Your task to perform on an android device: Go to ESPN.com Image 0: 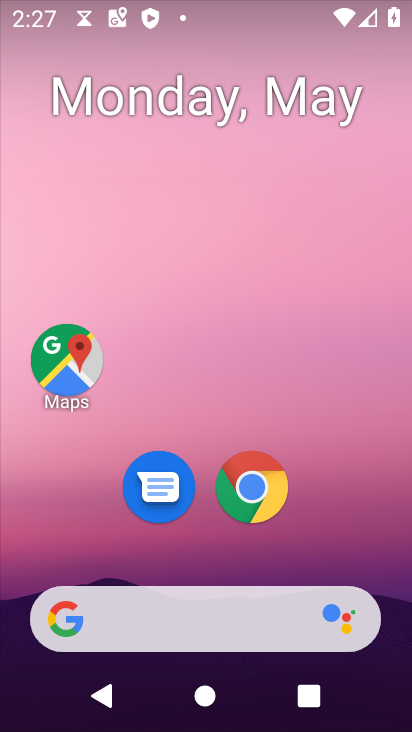
Step 0: click (268, 487)
Your task to perform on an android device: Go to ESPN.com Image 1: 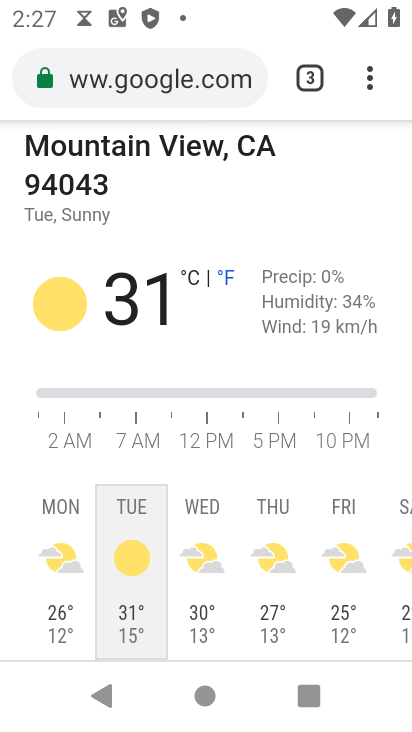
Step 1: click (237, 84)
Your task to perform on an android device: Go to ESPN.com Image 2: 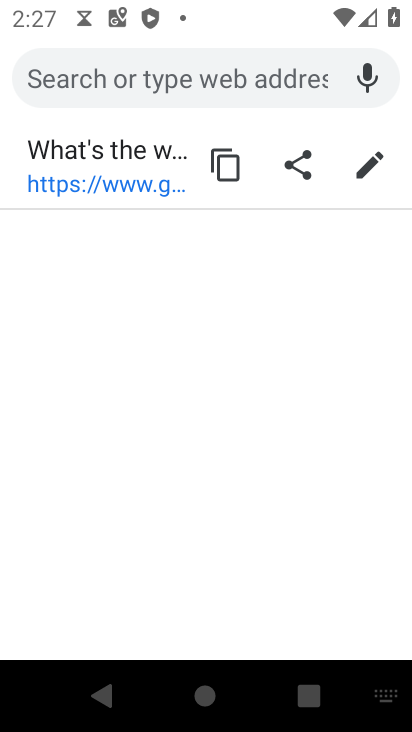
Step 2: type "espn.com"
Your task to perform on an android device: Go to ESPN.com Image 3: 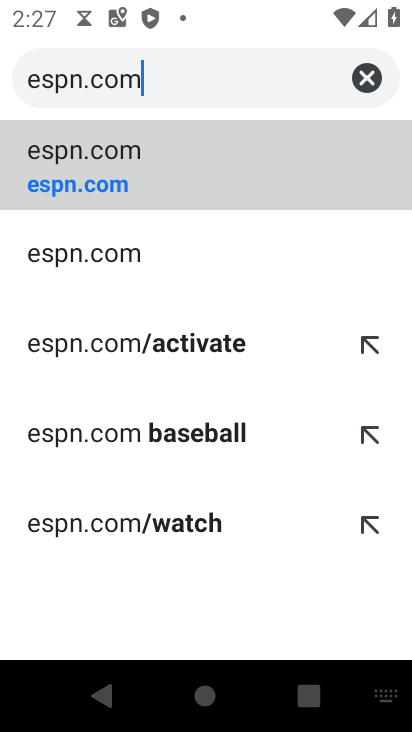
Step 3: click (111, 183)
Your task to perform on an android device: Go to ESPN.com Image 4: 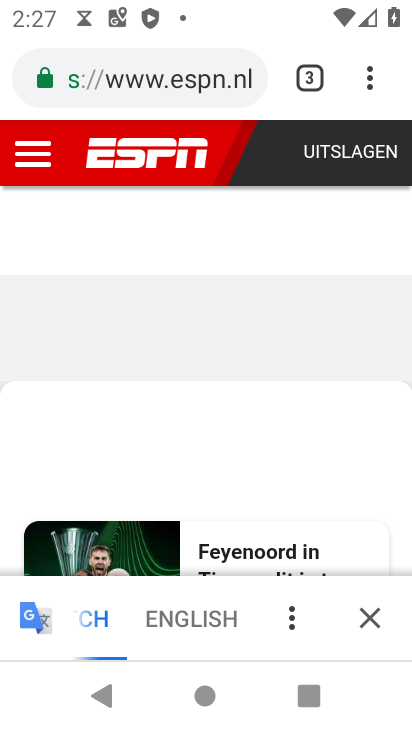
Step 4: click (368, 622)
Your task to perform on an android device: Go to ESPN.com Image 5: 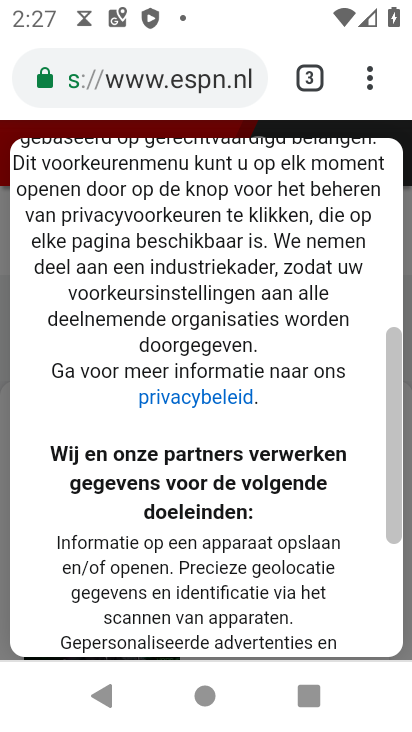
Step 5: drag from (317, 616) to (291, 233)
Your task to perform on an android device: Go to ESPN.com Image 6: 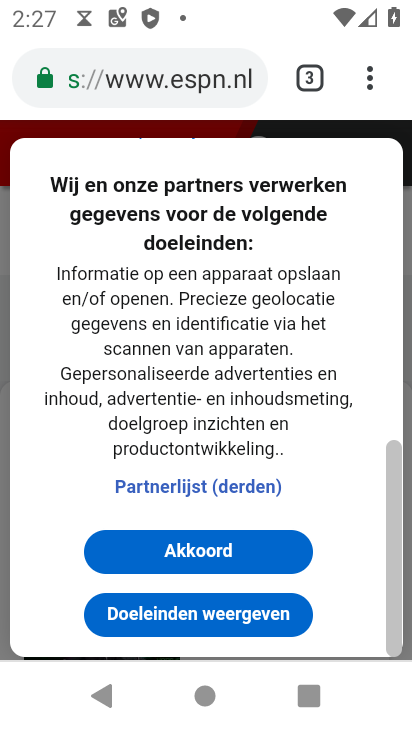
Step 6: click (250, 552)
Your task to perform on an android device: Go to ESPN.com Image 7: 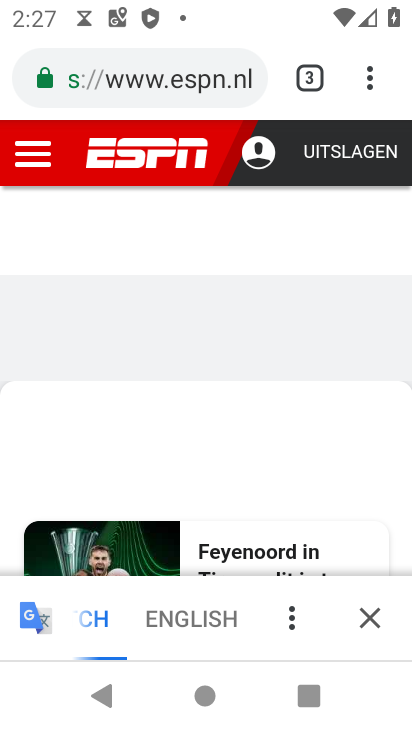
Step 7: task complete